Your task to perform on an android device: turn off priority inbox in the gmail app Image 0: 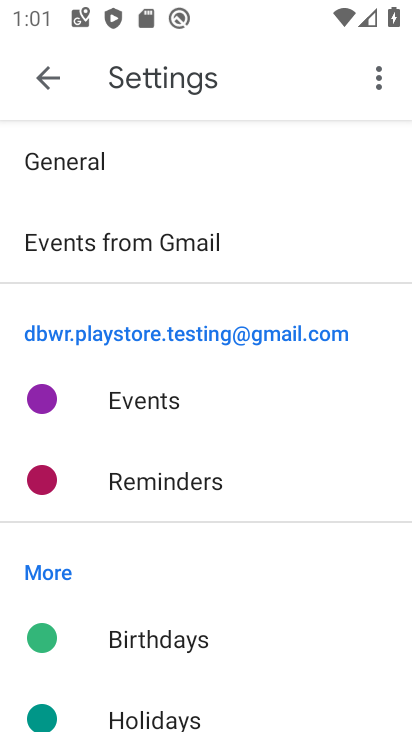
Step 0: press home button
Your task to perform on an android device: turn off priority inbox in the gmail app Image 1: 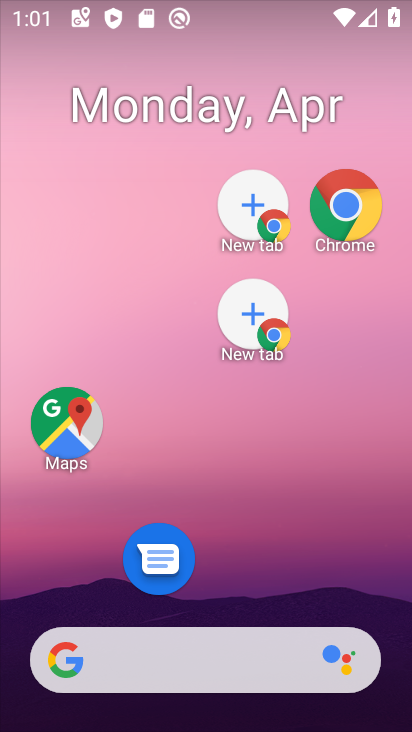
Step 1: click (35, 124)
Your task to perform on an android device: turn off priority inbox in the gmail app Image 2: 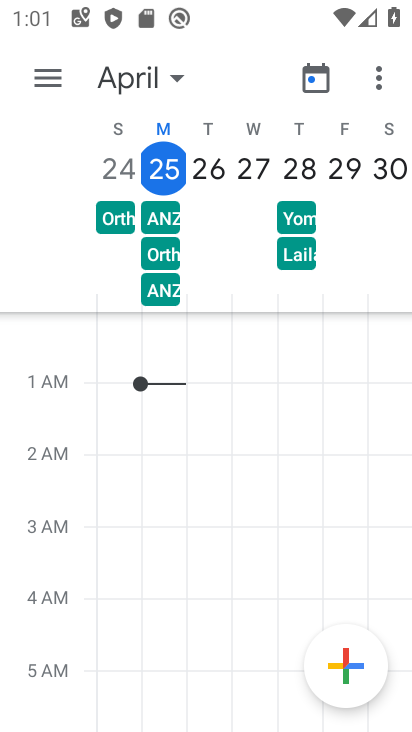
Step 2: press home button
Your task to perform on an android device: turn off priority inbox in the gmail app Image 3: 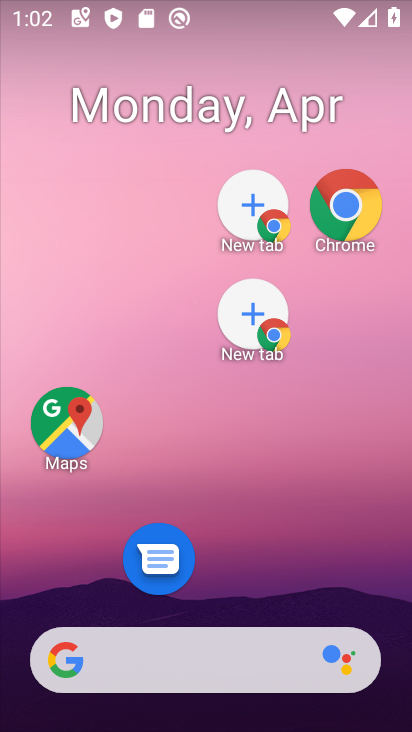
Step 3: drag from (55, 500) to (133, 328)
Your task to perform on an android device: turn off priority inbox in the gmail app Image 4: 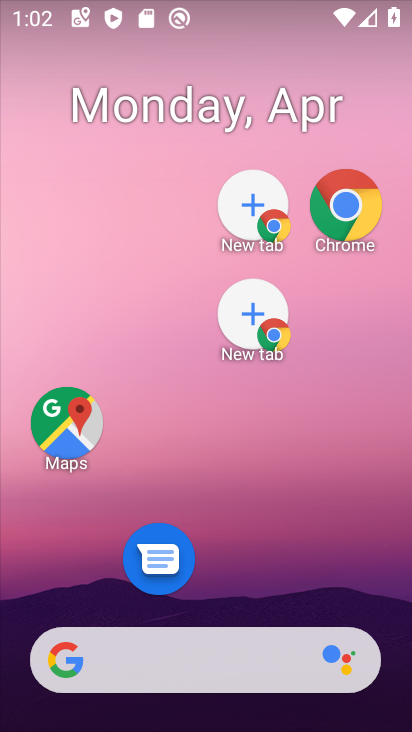
Step 4: drag from (15, 407) to (76, 198)
Your task to perform on an android device: turn off priority inbox in the gmail app Image 5: 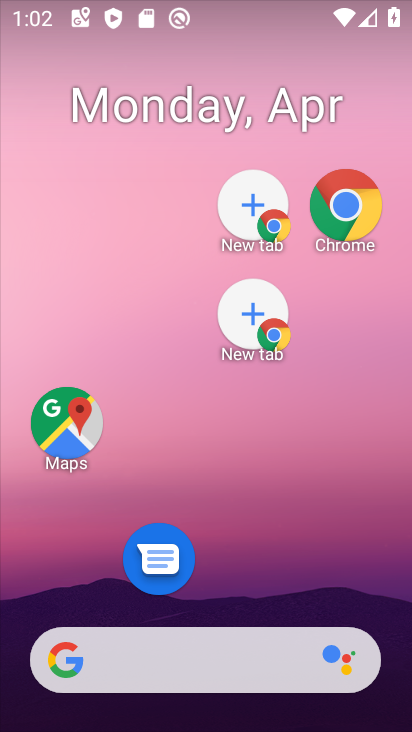
Step 5: drag from (13, 656) to (92, 161)
Your task to perform on an android device: turn off priority inbox in the gmail app Image 6: 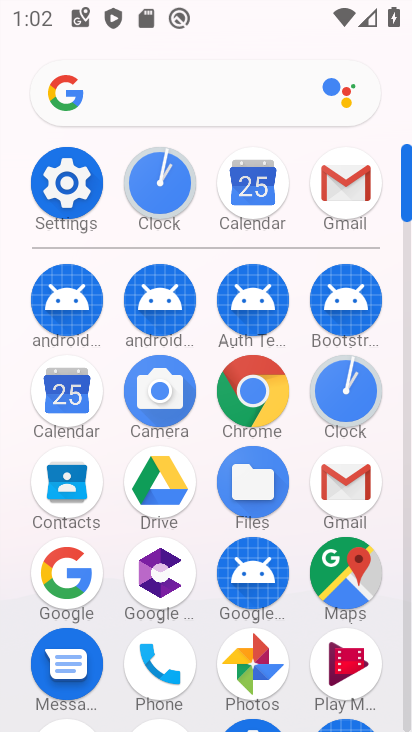
Step 6: click (358, 196)
Your task to perform on an android device: turn off priority inbox in the gmail app Image 7: 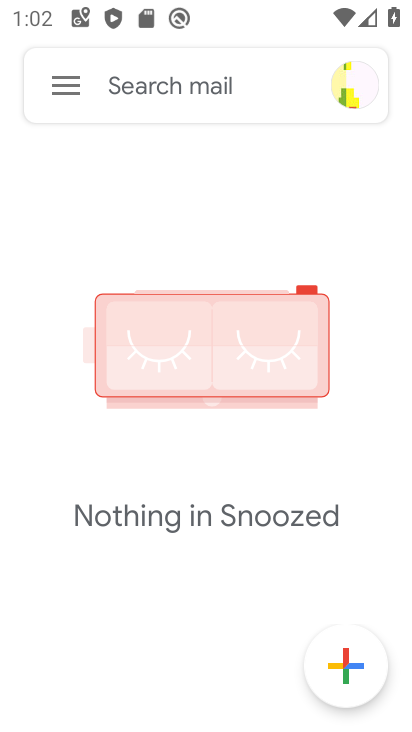
Step 7: click (69, 100)
Your task to perform on an android device: turn off priority inbox in the gmail app Image 8: 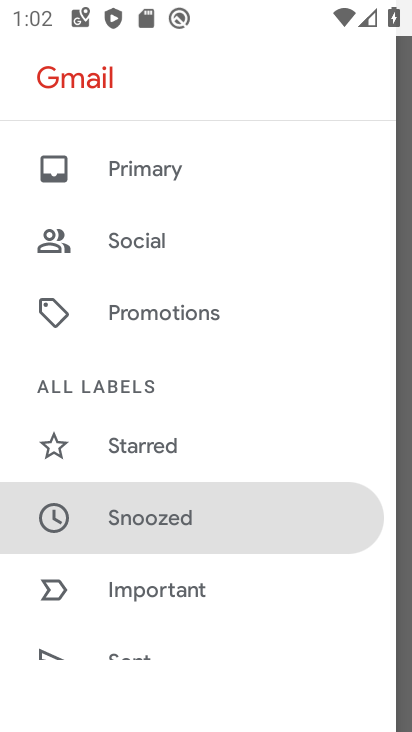
Step 8: drag from (169, 626) to (249, 179)
Your task to perform on an android device: turn off priority inbox in the gmail app Image 9: 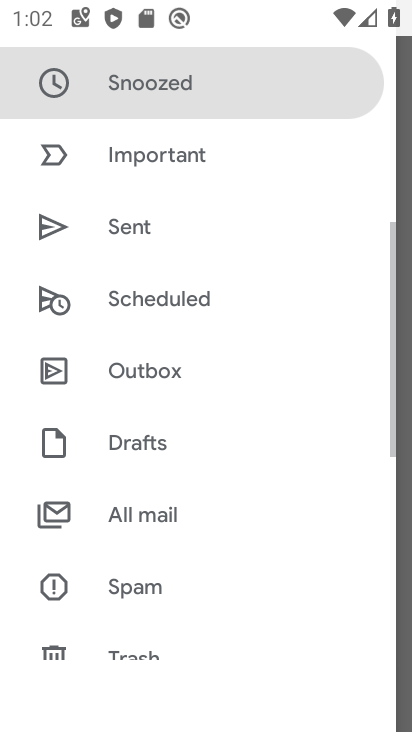
Step 9: drag from (218, 640) to (273, 226)
Your task to perform on an android device: turn off priority inbox in the gmail app Image 10: 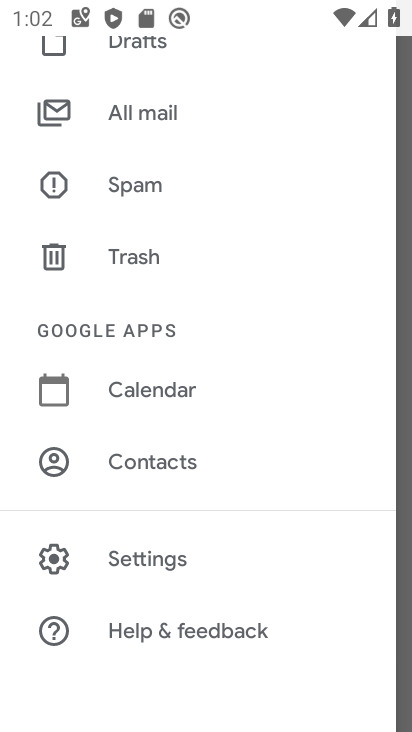
Step 10: click (172, 573)
Your task to perform on an android device: turn off priority inbox in the gmail app Image 11: 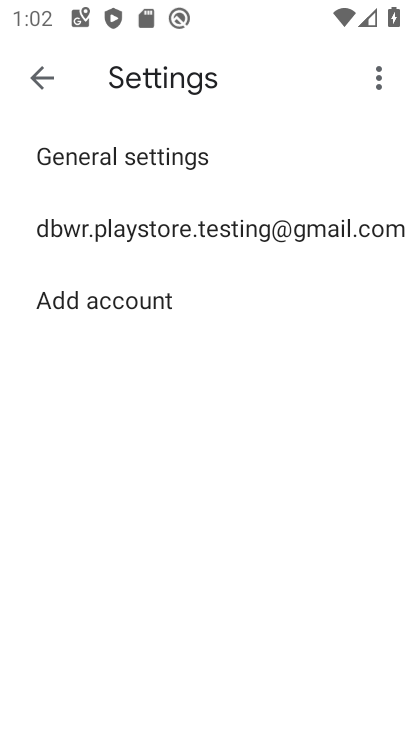
Step 11: click (251, 231)
Your task to perform on an android device: turn off priority inbox in the gmail app Image 12: 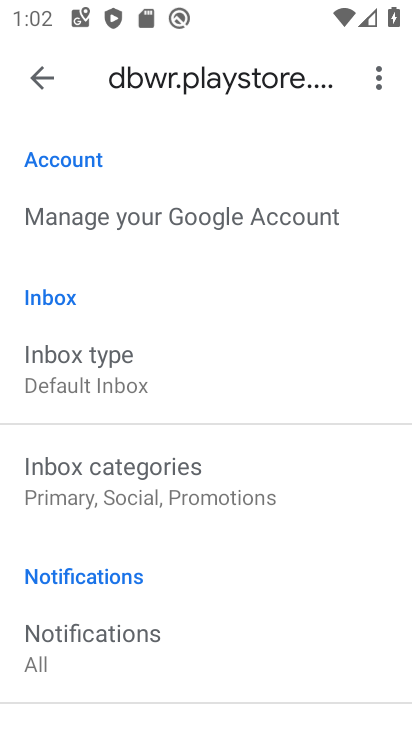
Step 12: click (168, 388)
Your task to perform on an android device: turn off priority inbox in the gmail app Image 13: 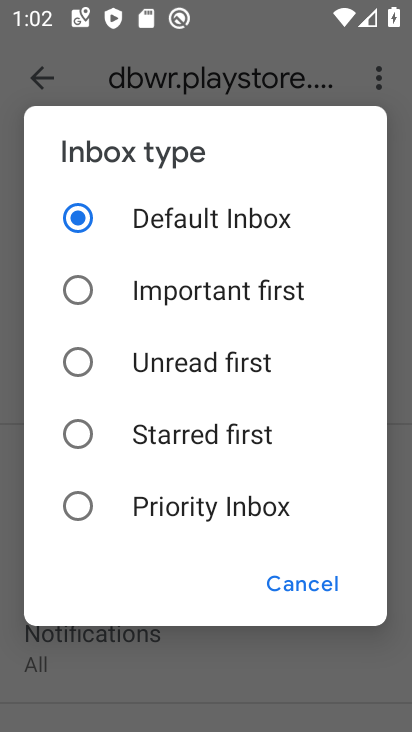
Step 13: click (152, 520)
Your task to perform on an android device: turn off priority inbox in the gmail app Image 14: 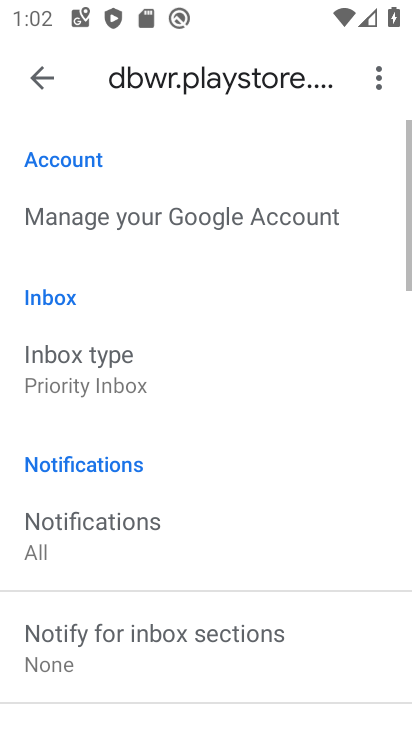
Step 14: click (128, 396)
Your task to perform on an android device: turn off priority inbox in the gmail app Image 15: 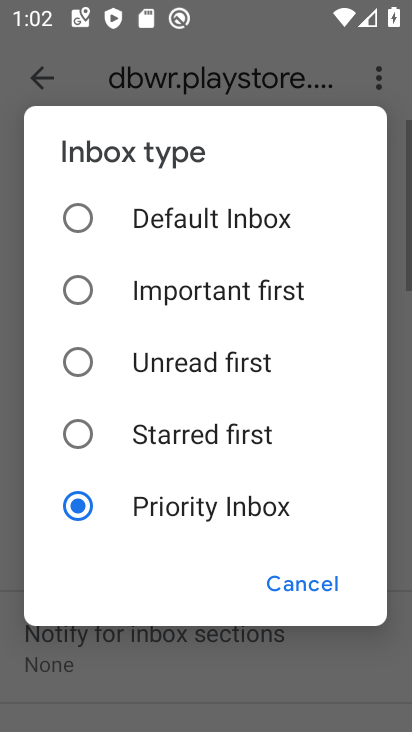
Step 15: click (224, 238)
Your task to perform on an android device: turn off priority inbox in the gmail app Image 16: 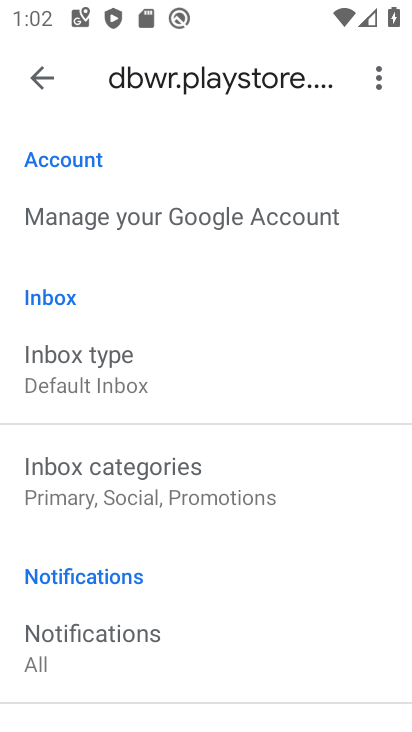
Step 16: task complete